Your task to perform on an android device: open chrome and create a bookmark for the current page Image 0: 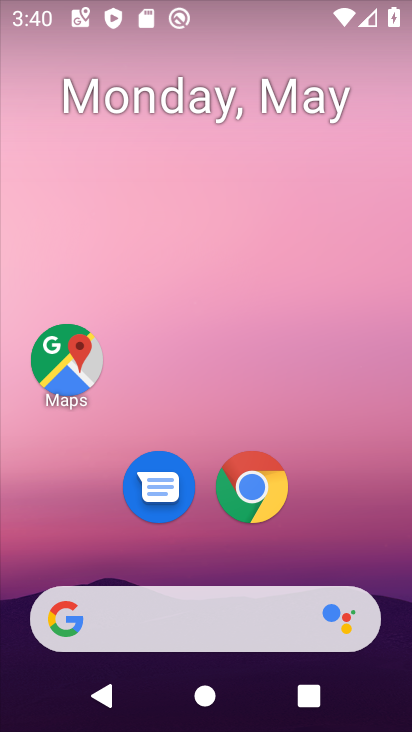
Step 0: click (283, 485)
Your task to perform on an android device: open chrome and create a bookmark for the current page Image 1: 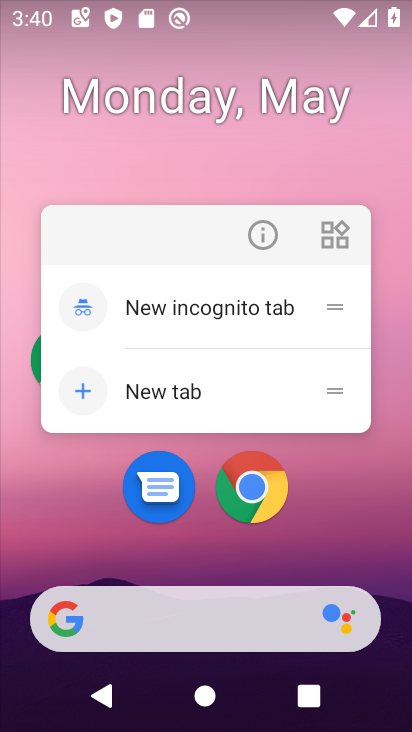
Step 1: click (269, 482)
Your task to perform on an android device: open chrome and create a bookmark for the current page Image 2: 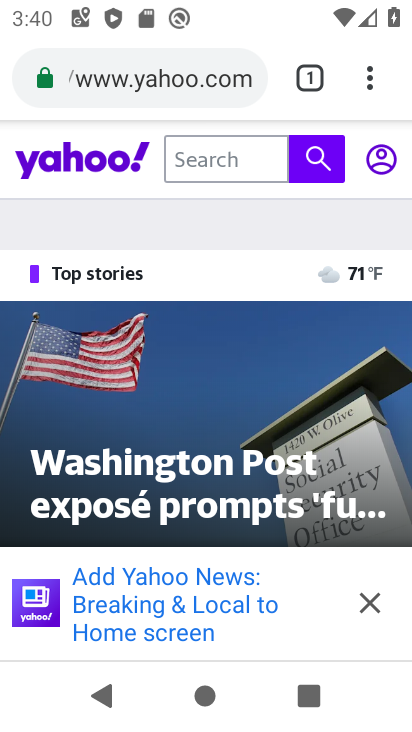
Step 2: click (377, 85)
Your task to perform on an android device: open chrome and create a bookmark for the current page Image 3: 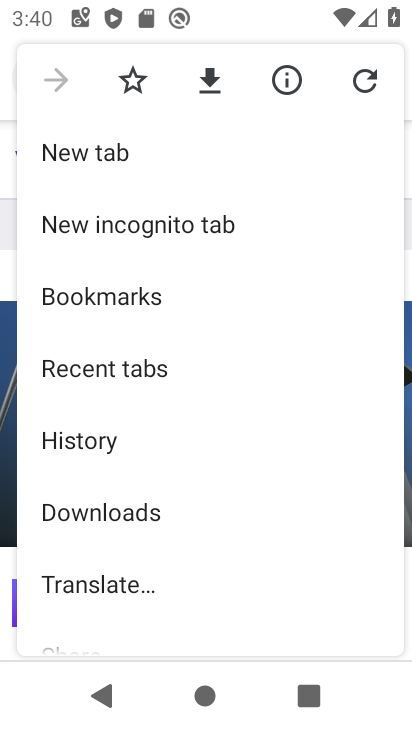
Step 3: click (138, 81)
Your task to perform on an android device: open chrome and create a bookmark for the current page Image 4: 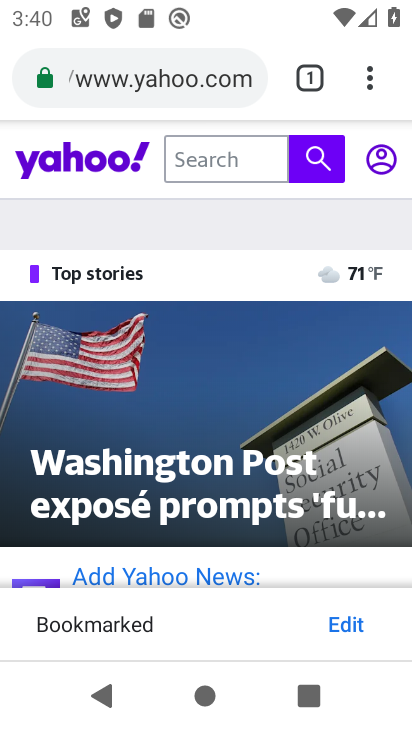
Step 4: task complete